Your task to perform on an android device: Open calendar and show me the fourth week of next month Image 0: 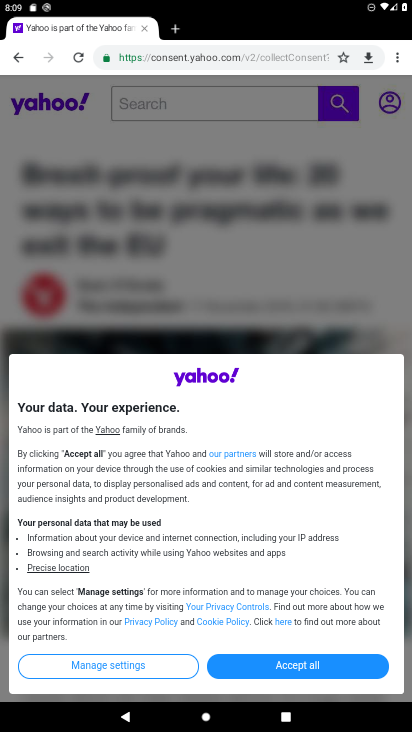
Step 0: press home button
Your task to perform on an android device: Open calendar and show me the fourth week of next month Image 1: 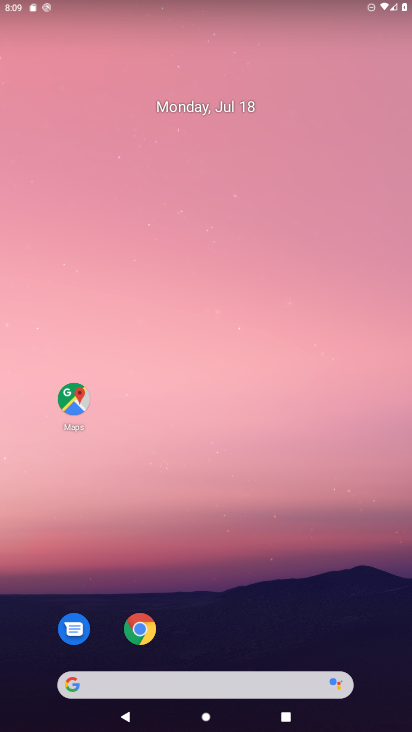
Step 1: drag from (211, 645) to (219, 4)
Your task to perform on an android device: Open calendar and show me the fourth week of next month Image 2: 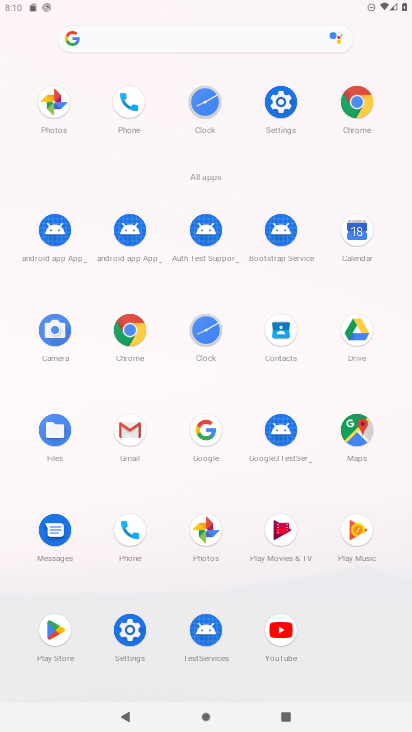
Step 2: click (360, 234)
Your task to perform on an android device: Open calendar and show me the fourth week of next month Image 3: 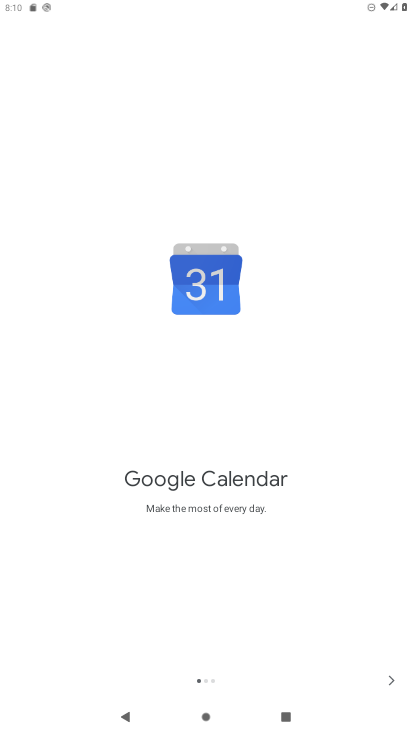
Step 3: click (388, 682)
Your task to perform on an android device: Open calendar and show me the fourth week of next month Image 4: 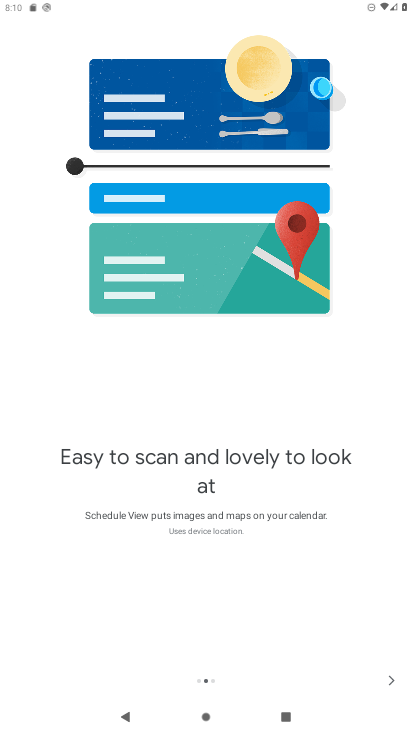
Step 4: click (388, 682)
Your task to perform on an android device: Open calendar and show me the fourth week of next month Image 5: 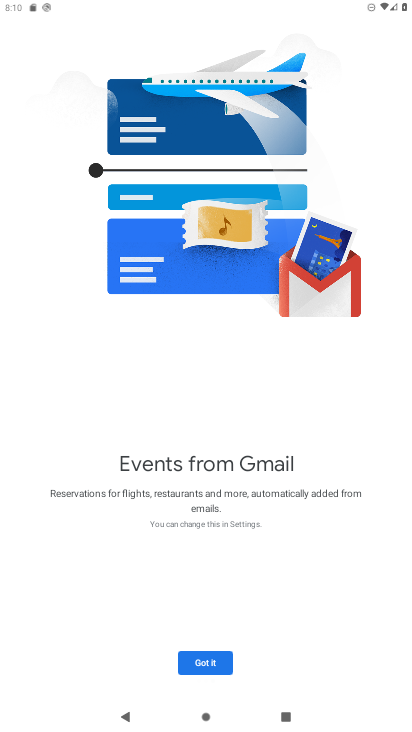
Step 5: click (388, 682)
Your task to perform on an android device: Open calendar and show me the fourth week of next month Image 6: 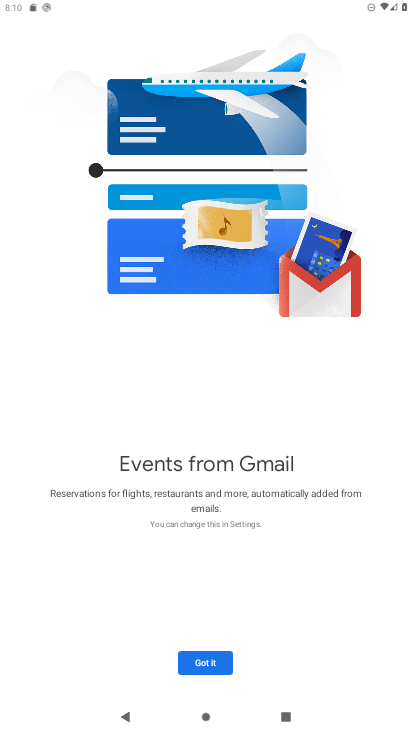
Step 6: click (190, 662)
Your task to perform on an android device: Open calendar and show me the fourth week of next month Image 7: 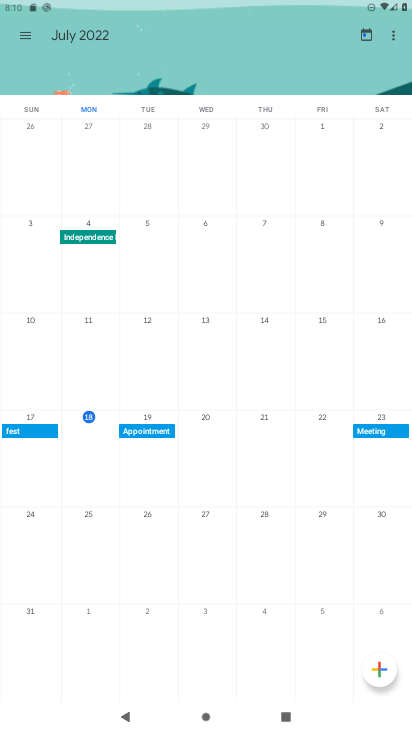
Step 7: click (19, 31)
Your task to perform on an android device: Open calendar and show me the fourth week of next month Image 8: 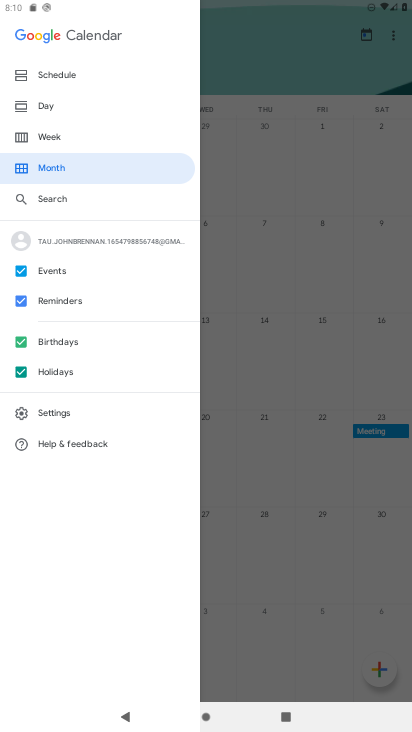
Step 8: click (32, 128)
Your task to perform on an android device: Open calendar and show me the fourth week of next month Image 9: 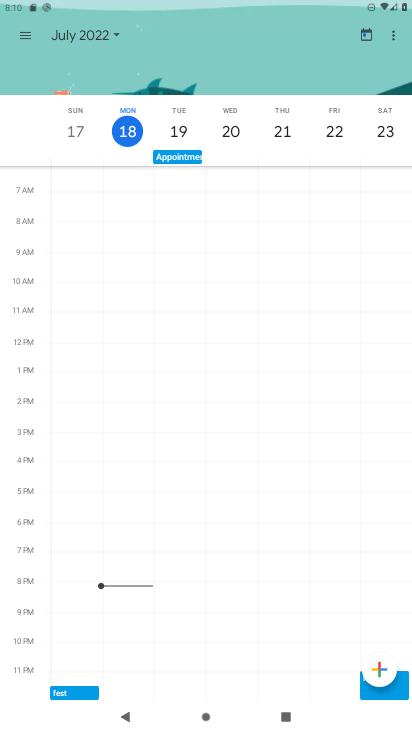
Step 9: task complete